Your task to perform on an android device: empty trash in google photos Image 0: 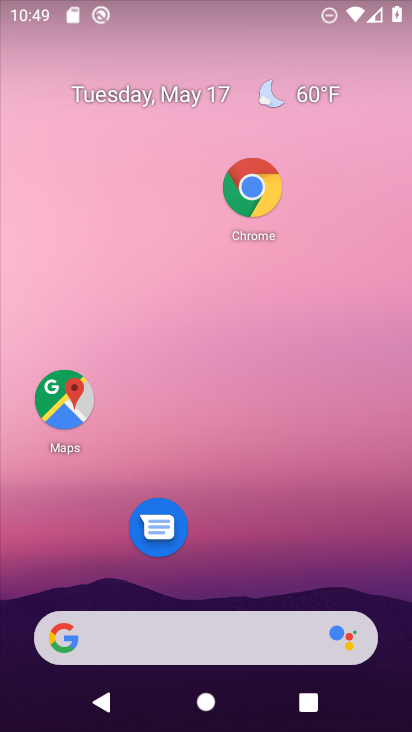
Step 0: drag from (279, 537) to (234, 53)
Your task to perform on an android device: empty trash in google photos Image 1: 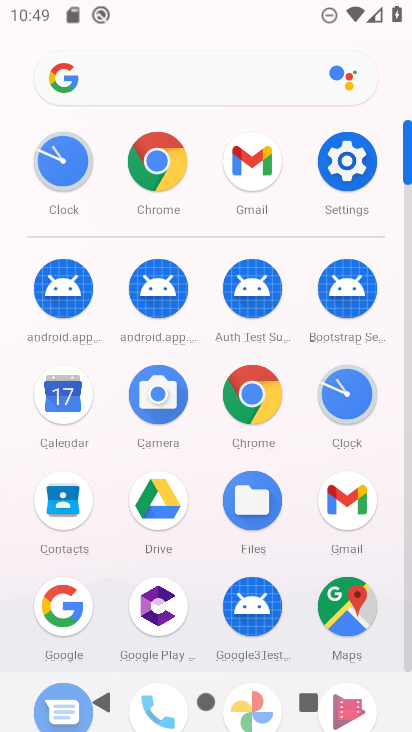
Step 1: click (411, 648)
Your task to perform on an android device: empty trash in google photos Image 2: 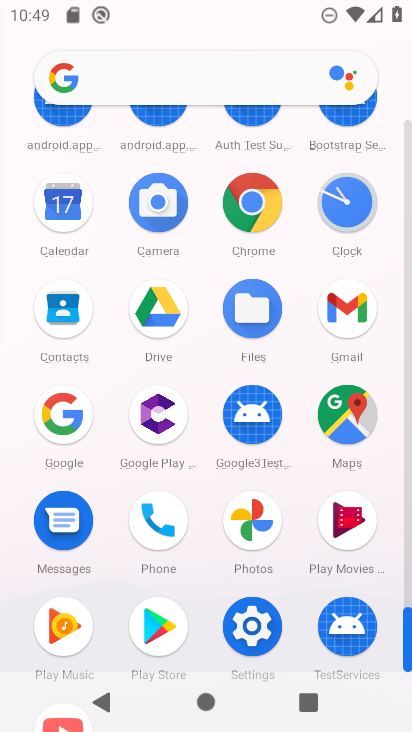
Step 2: click (237, 557)
Your task to perform on an android device: empty trash in google photos Image 3: 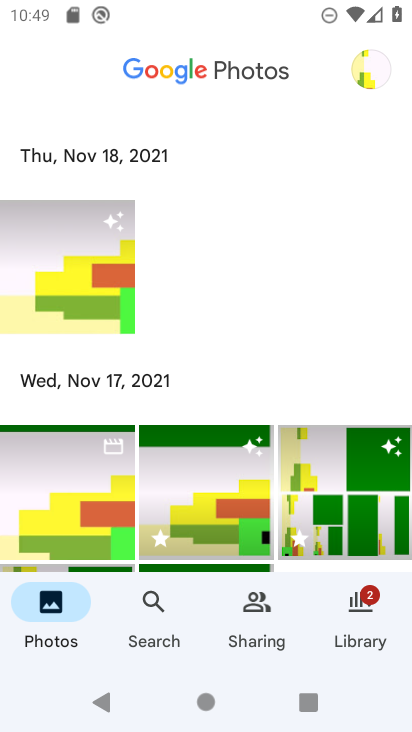
Step 3: click (365, 79)
Your task to perform on an android device: empty trash in google photos Image 4: 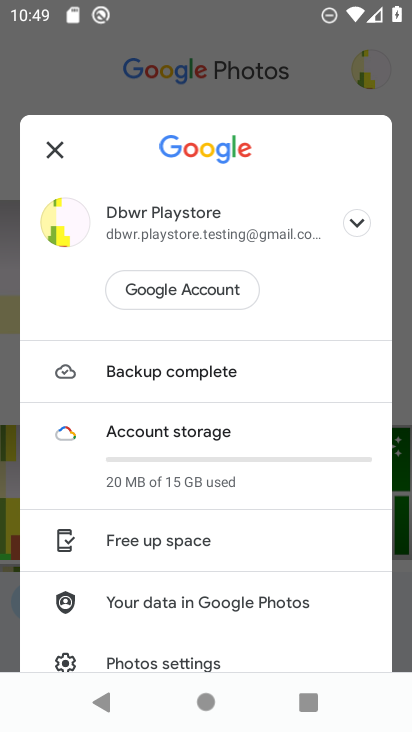
Step 4: drag from (216, 489) to (214, 448)
Your task to perform on an android device: empty trash in google photos Image 5: 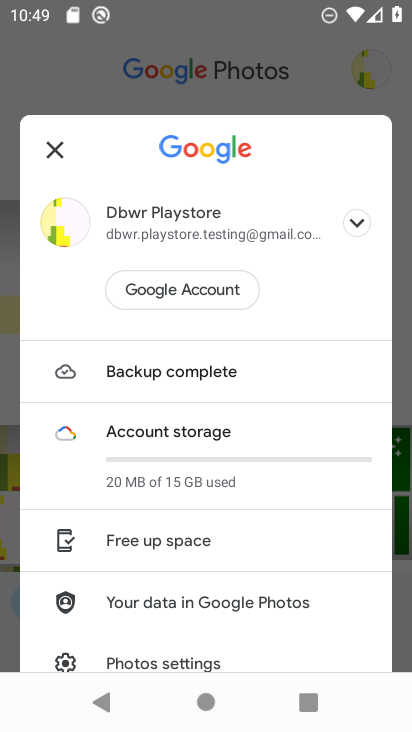
Step 5: drag from (244, 624) to (219, 448)
Your task to perform on an android device: empty trash in google photos Image 6: 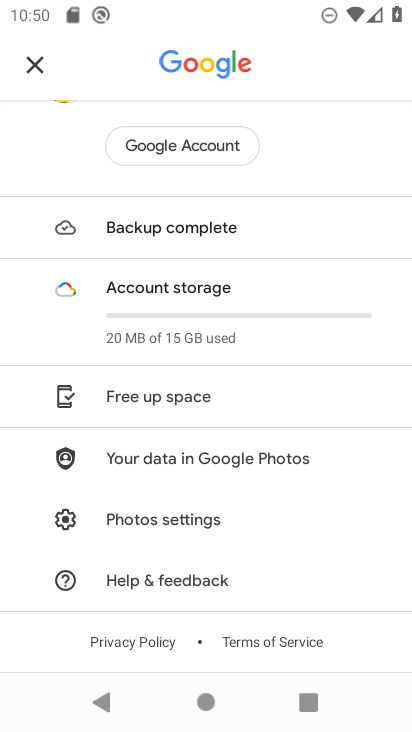
Step 6: drag from (277, 536) to (255, 481)
Your task to perform on an android device: empty trash in google photos Image 7: 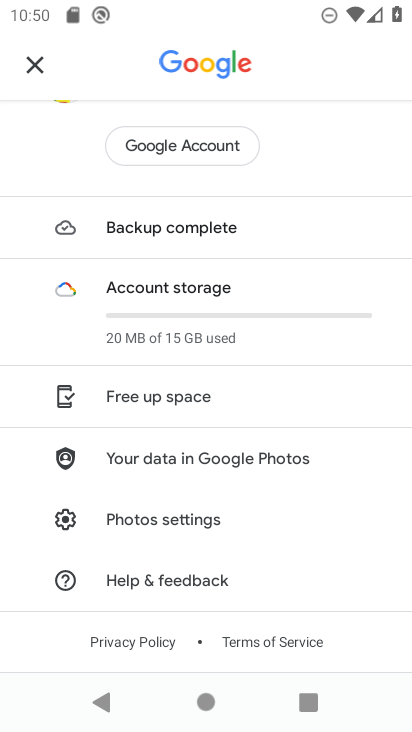
Step 7: click (116, 728)
Your task to perform on an android device: empty trash in google photos Image 8: 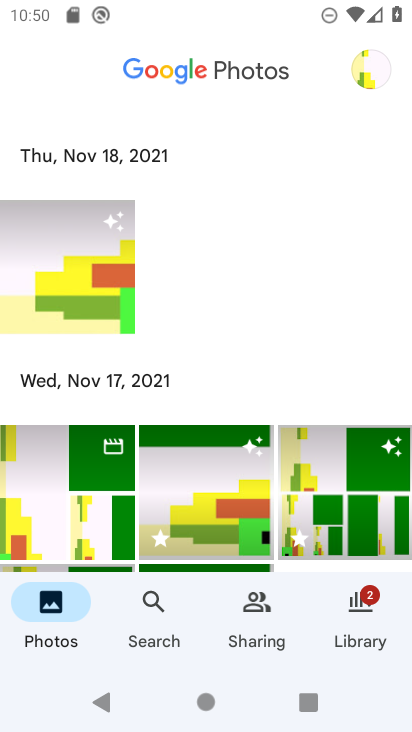
Step 8: click (360, 597)
Your task to perform on an android device: empty trash in google photos Image 9: 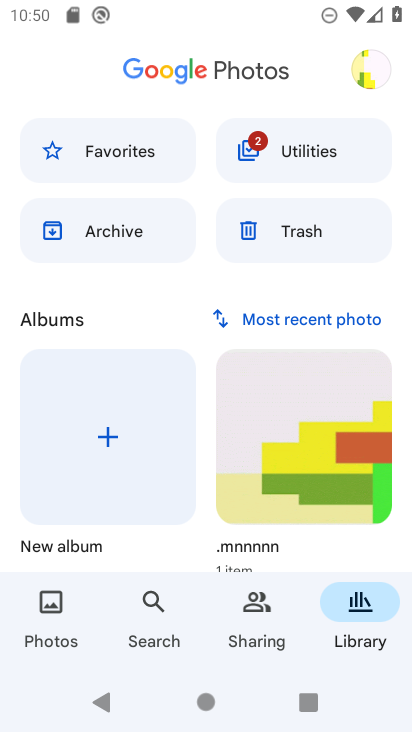
Step 9: click (290, 212)
Your task to perform on an android device: empty trash in google photos Image 10: 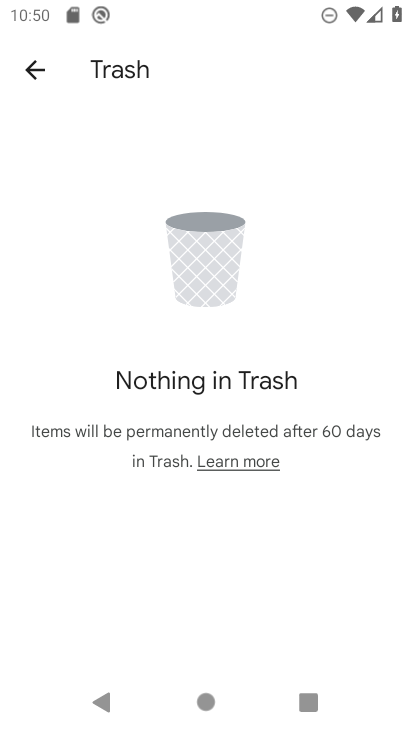
Step 10: task complete